Your task to perform on an android device: toggle notifications settings in the gmail app Image 0: 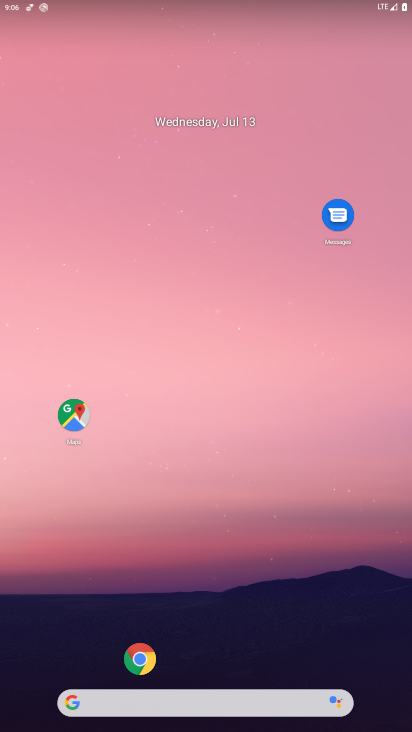
Step 0: drag from (196, 40) to (178, 8)
Your task to perform on an android device: toggle notifications settings in the gmail app Image 1: 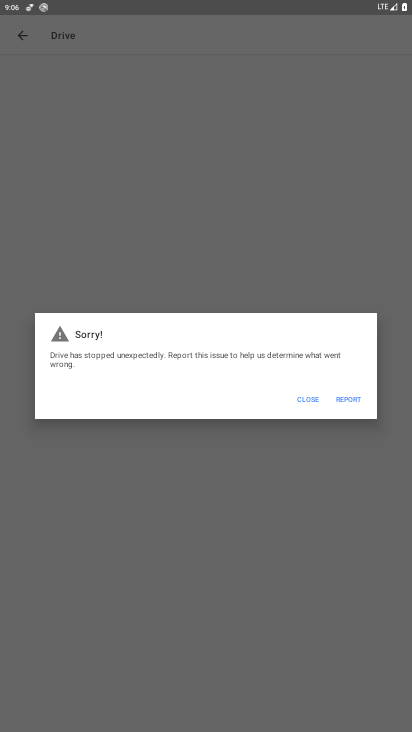
Step 1: press home button
Your task to perform on an android device: toggle notifications settings in the gmail app Image 2: 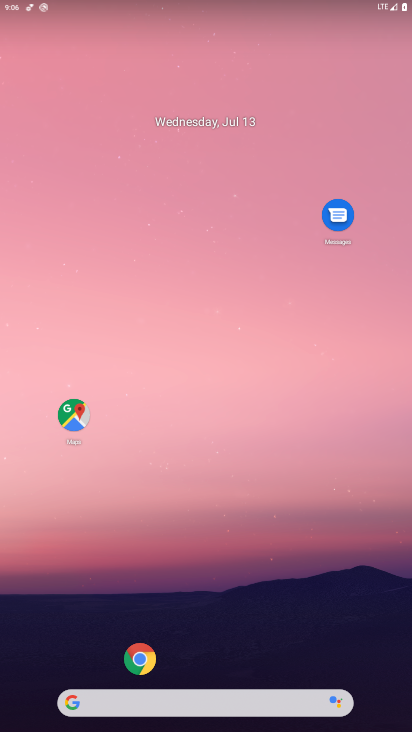
Step 2: drag from (55, 637) to (261, 4)
Your task to perform on an android device: toggle notifications settings in the gmail app Image 3: 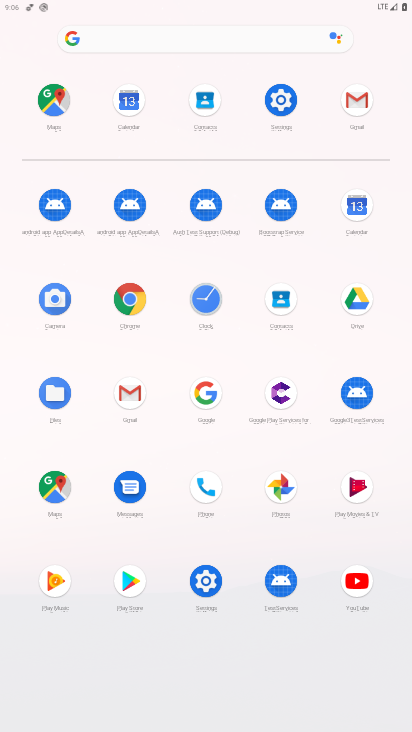
Step 3: click (133, 402)
Your task to perform on an android device: toggle notifications settings in the gmail app Image 4: 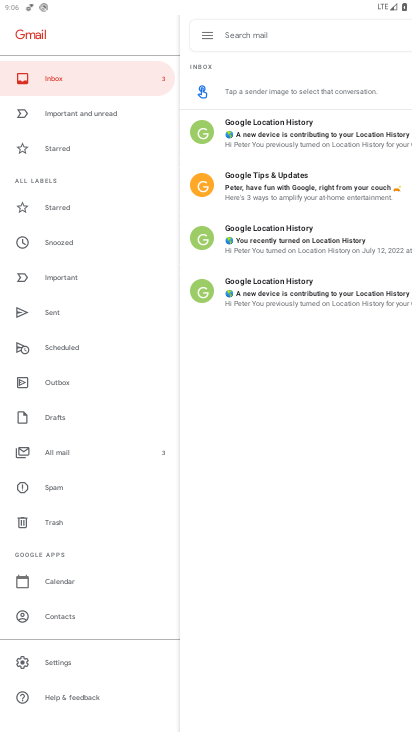
Step 4: click (49, 661)
Your task to perform on an android device: toggle notifications settings in the gmail app Image 5: 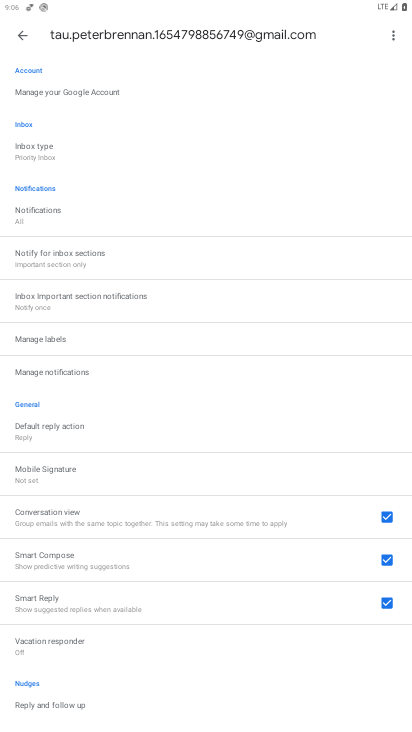
Step 5: click (75, 310)
Your task to perform on an android device: toggle notifications settings in the gmail app Image 6: 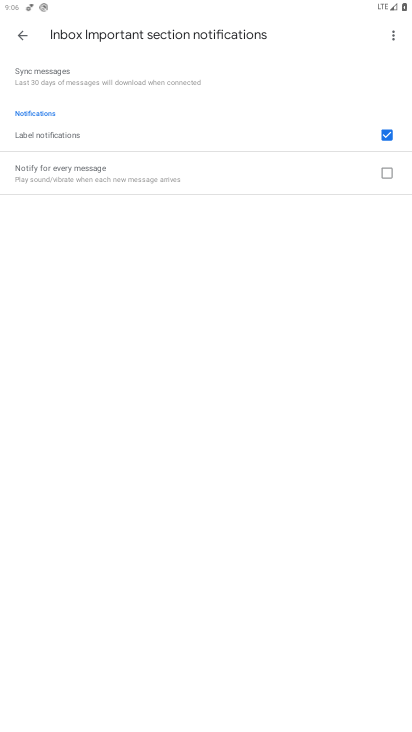
Step 6: task complete